Your task to perform on an android device: turn on javascript in the chrome app Image 0: 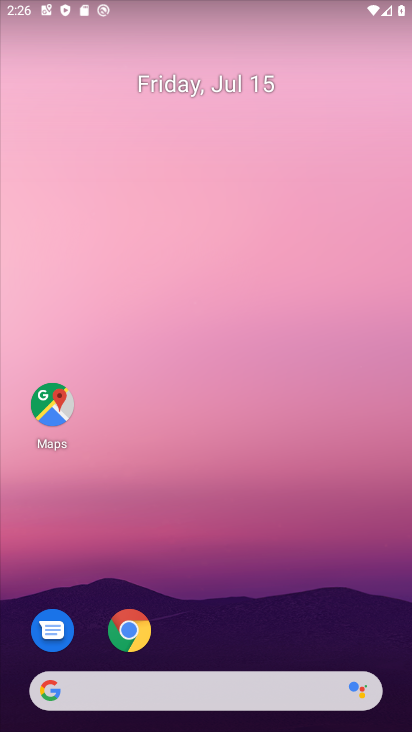
Step 0: drag from (209, 653) to (189, 162)
Your task to perform on an android device: turn on javascript in the chrome app Image 1: 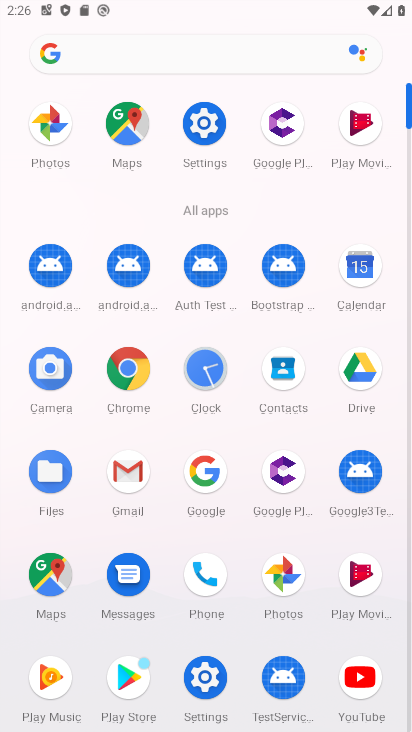
Step 1: click (125, 388)
Your task to perform on an android device: turn on javascript in the chrome app Image 2: 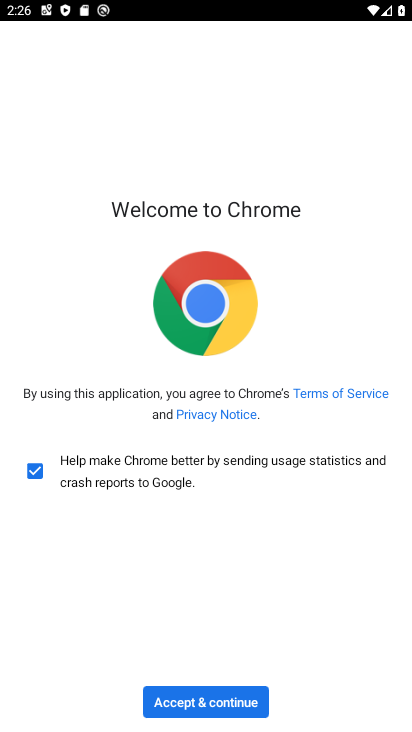
Step 2: click (211, 698)
Your task to perform on an android device: turn on javascript in the chrome app Image 3: 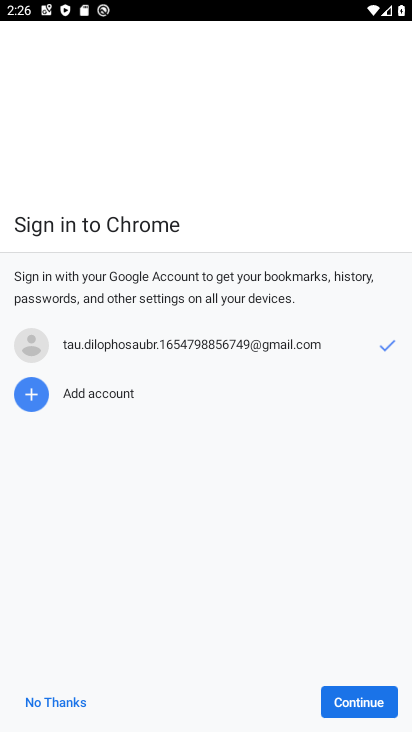
Step 3: click (351, 699)
Your task to perform on an android device: turn on javascript in the chrome app Image 4: 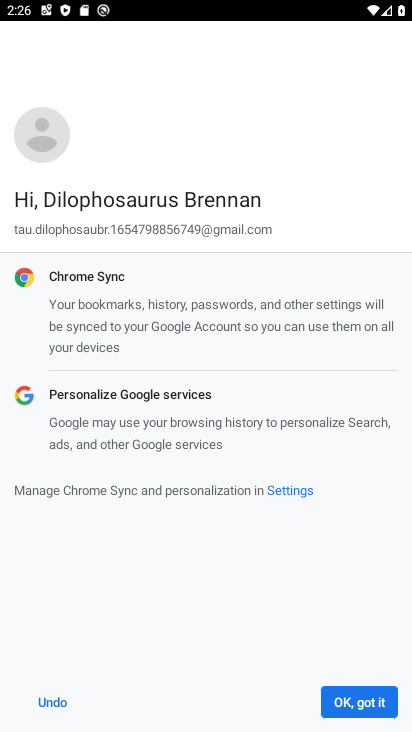
Step 4: click (357, 702)
Your task to perform on an android device: turn on javascript in the chrome app Image 5: 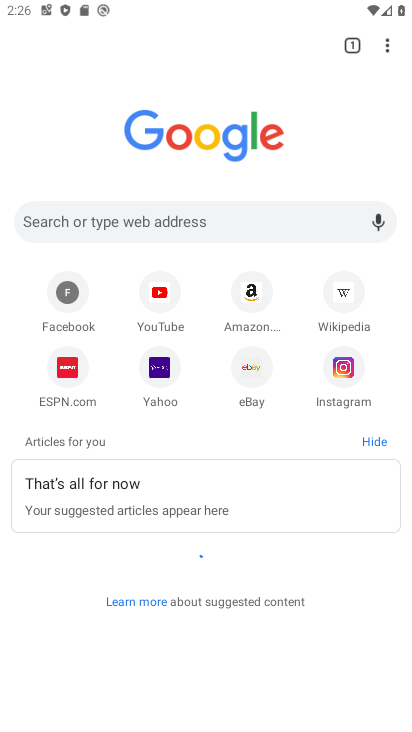
Step 5: click (393, 43)
Your task to perform on an android device: turn on javascript in the chrome app Image 6: 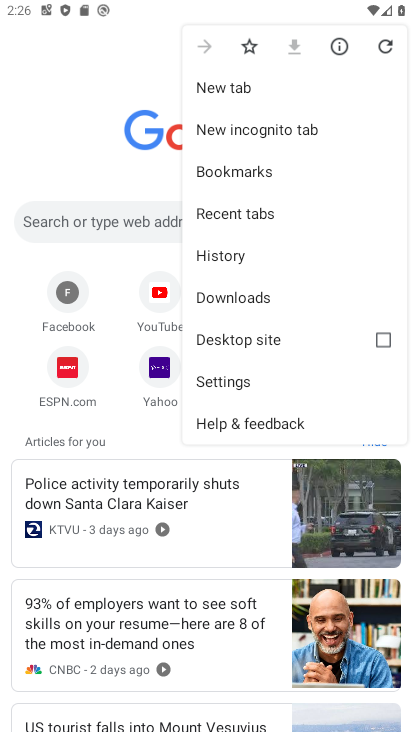
Step 6: click (211, 376)
Your task to perform on an android device: turn on javascript in the chrome app Image 7: 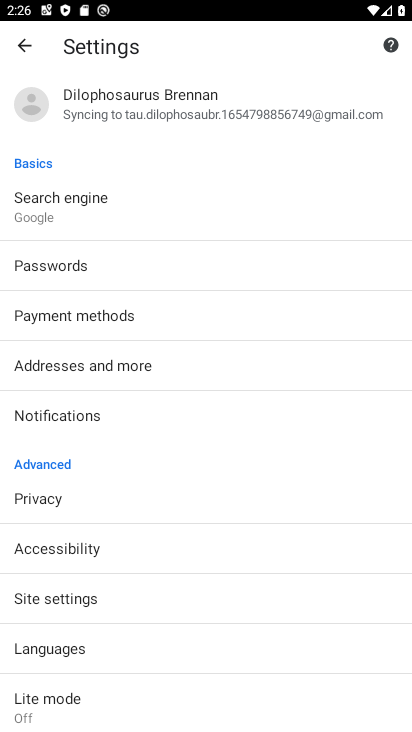
Step 7: click (62, 598)
Your task to perform on an android device: turn on javascript in the chrome app Image 8: 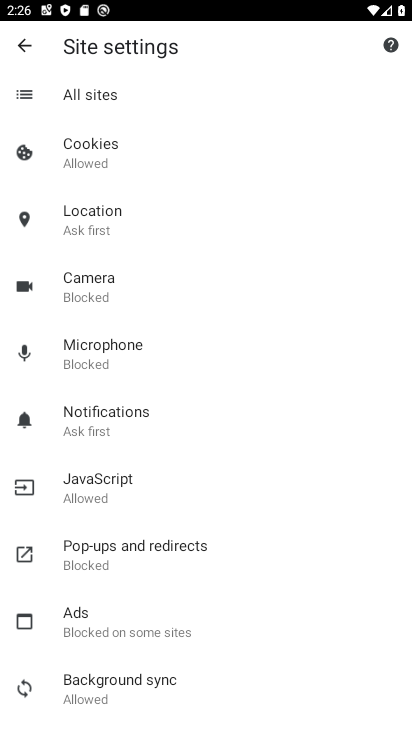
Step 8: click (97, 483)
Your task to perform on an android device: turn on javascript in the chrome app Image 9: 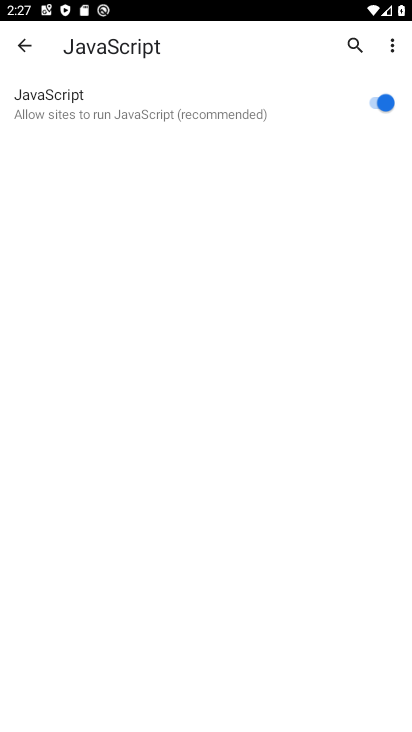
Step 9: task complete